Your task to perform on an android device: See recent photos Image 0: 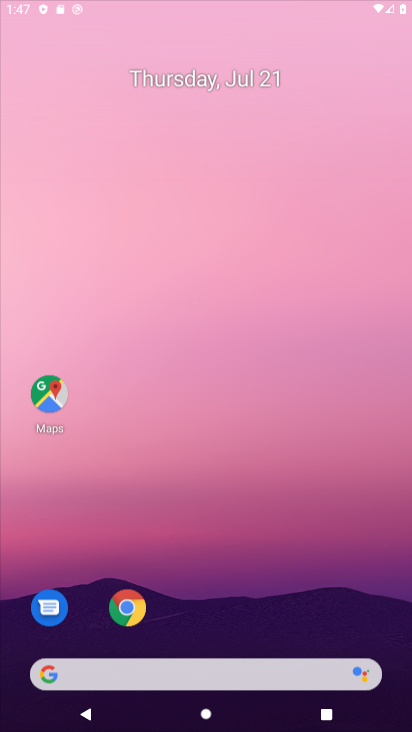
Step 0: press home button
Your task to perform on an android device: See recent photos Image 1: 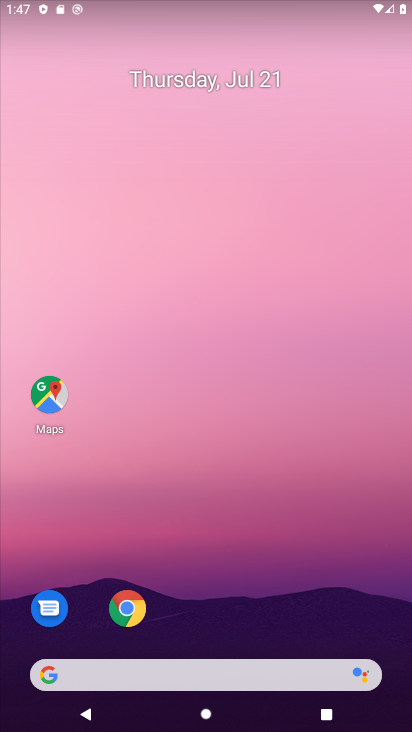
Step 1: drag from (267, 579) to (214, 147)
Your task to perform on an android device: See recent photos Image 2: 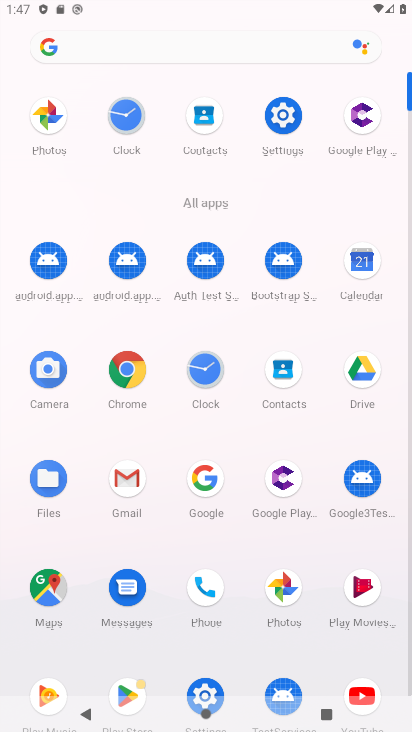
Step 2: click (41, 117)
Your task to perform on an android device: See recent photos Image 3: 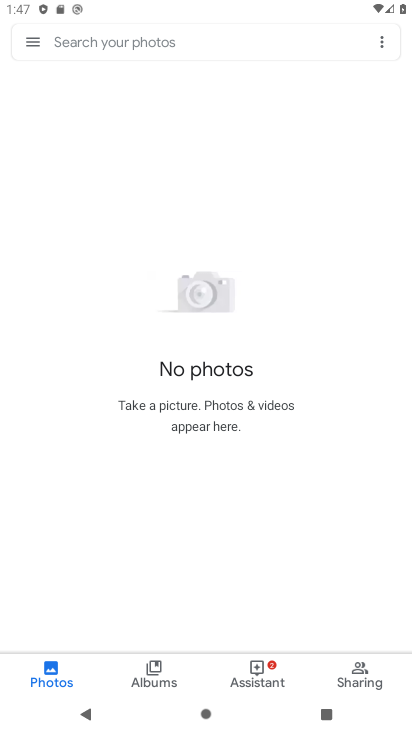
Step 3: task complete